Your task to perform on an android device: Is it going to rain today? Image 0: 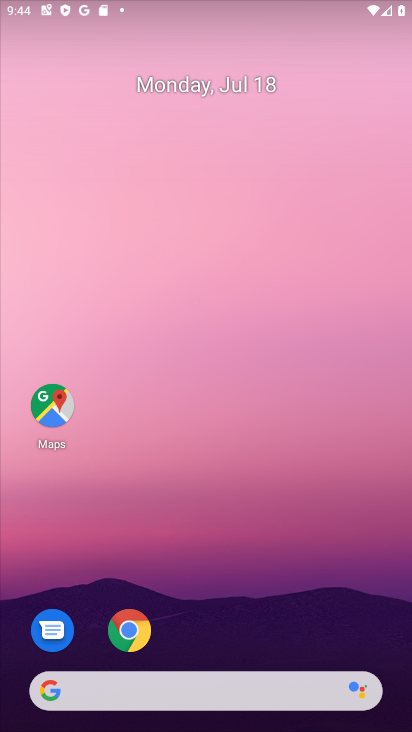
Step 0: drag from (390, 667) to (116, 82)
Your task to perform on an android device: Is it going to rain today? Image 1: 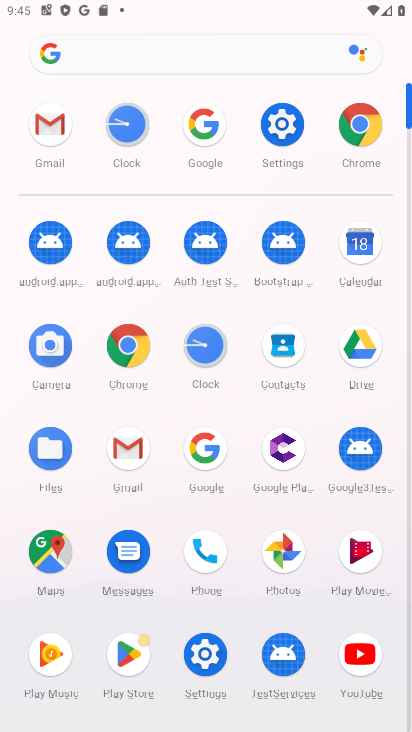
Step 1: click (204, 450)
Your task to perform on an android device: Is it going to rain today? Image 2: 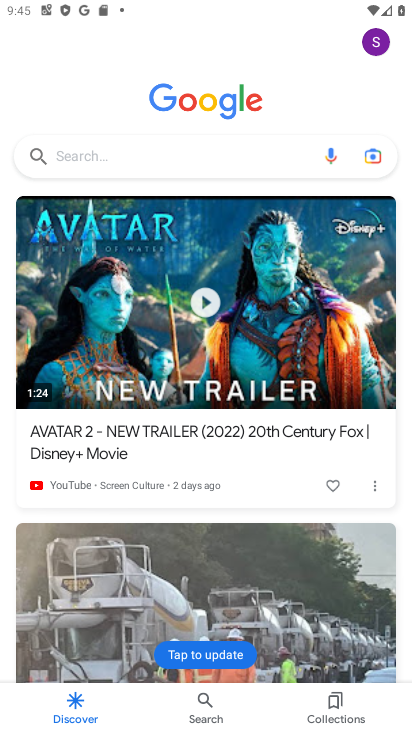
Step 2: click (156, 150)
Your task to perform on an android device: Is it going to rain today? Image 3: 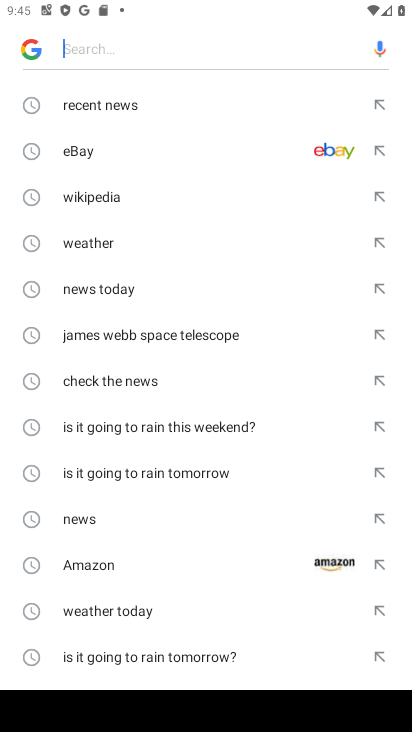
Step 3: type "Is it going to rain today?"
Your task to perform on an android device: Is it going to rain today? Image 4: 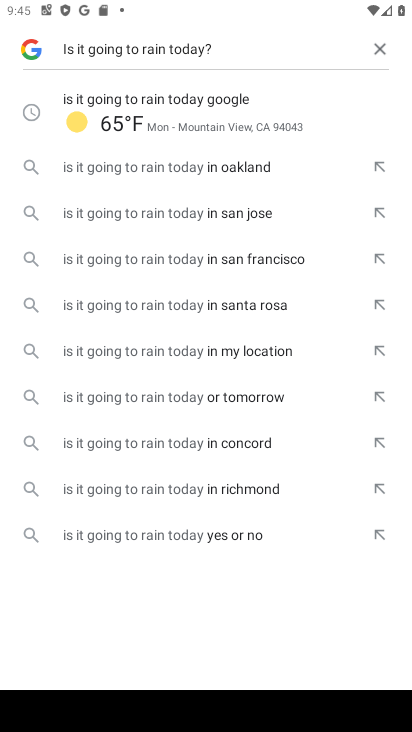
Step 4: click (164, 106)
Your task to perform on an android device: Is it going to rain today? Image 5: 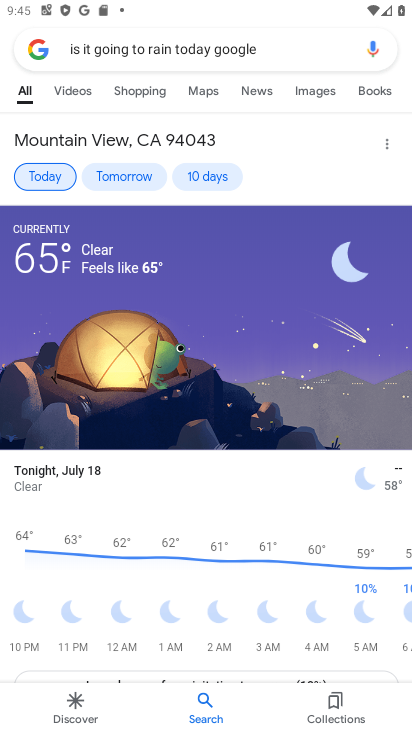
Step 5: task complete